Your task to perform on an android device: Open settings on Google Maps Image 0: 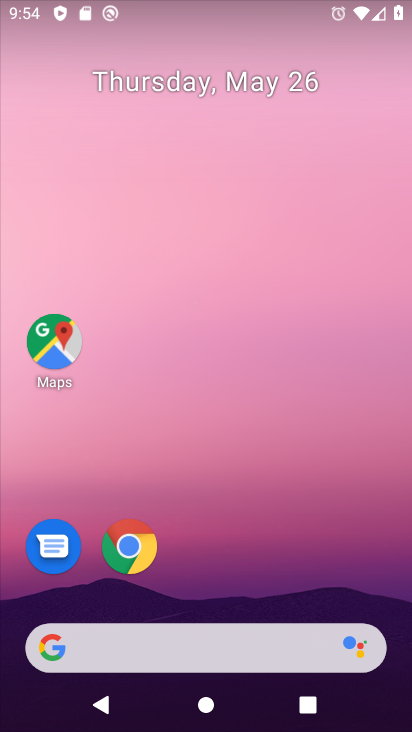
Step 0: click (54, 344)
Your task to perform on an android device: Open settings on Google Maps Image 1: 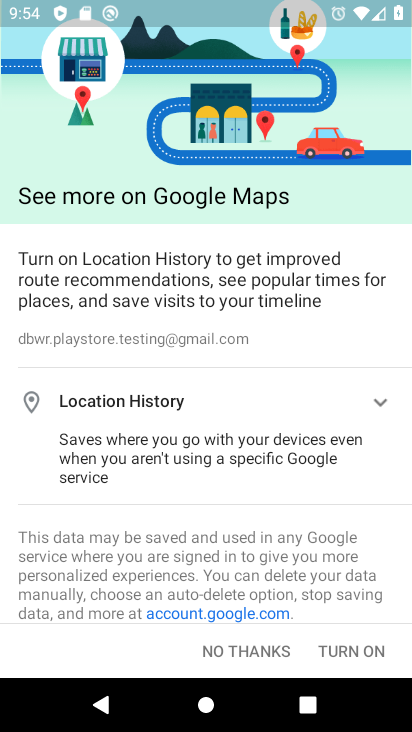
Step 1: click (223, 648)
Your task to perform on an android device: Open settings on Google Maps Image 2: 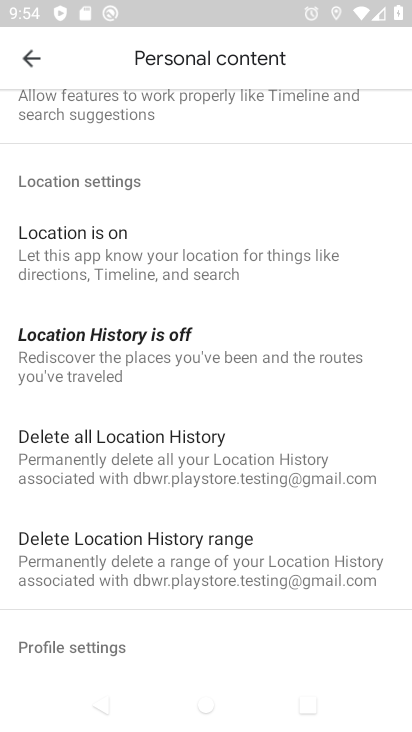
Step 2: click (29, 59)
Your task to perform on an android device: Open settings on Google Maps Image 3: 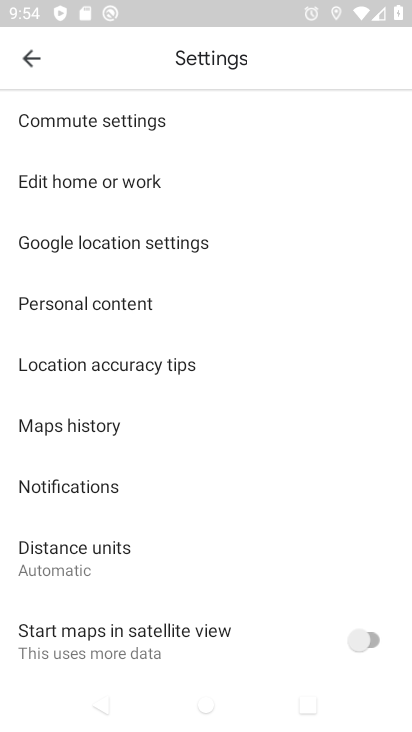
Step 3: task complete